Your task to perform on an android device: Open Amazon Image 0: 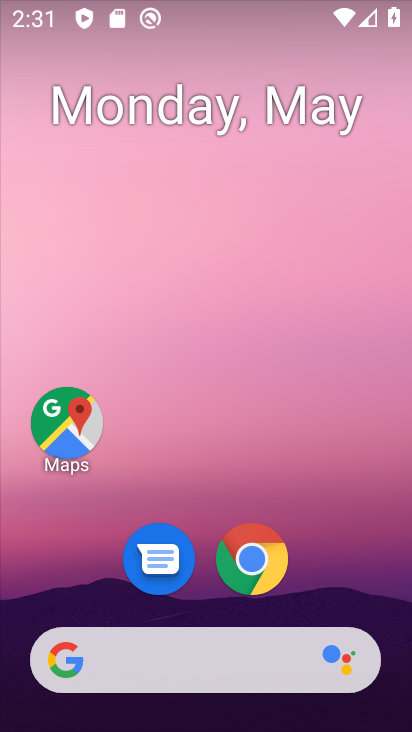
Step 0: drag from (335, 542) to (283, 25)
Your task to perform on an android device: Open Amazon Image 1: 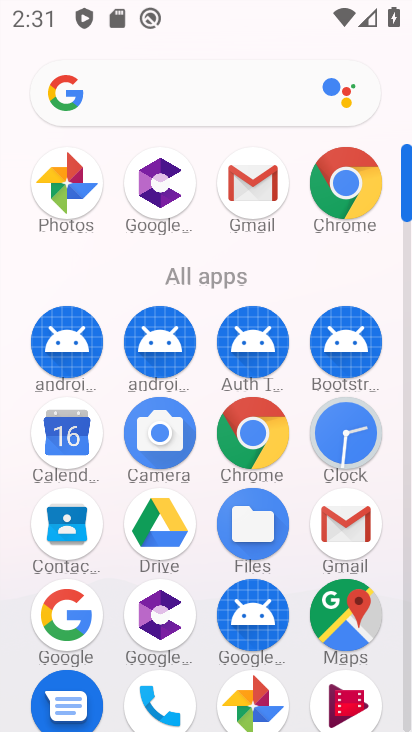
Step 1: click (248, 429)
Your task to perform on an android device: Open Amazon Image 2: 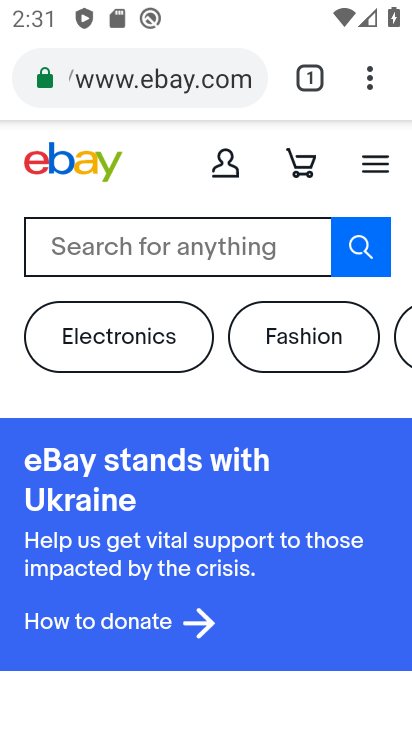
Step 2: click (180, 88)
Your task to perform on an android device: Open Amazon Image 3: 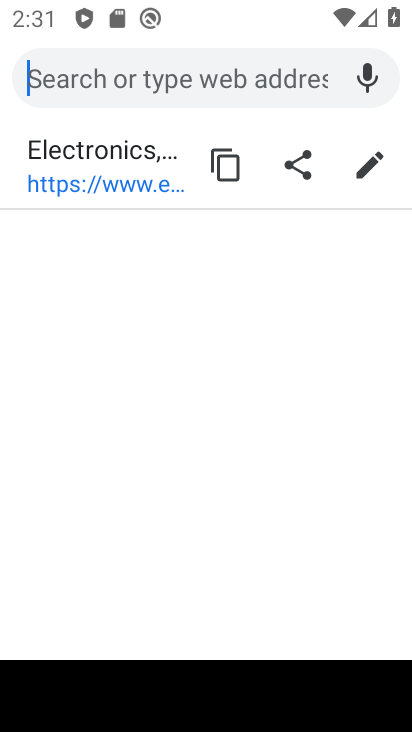
Step 3: type "Amazon"
Your task to perform on an android device: Open Amazon Image 4: 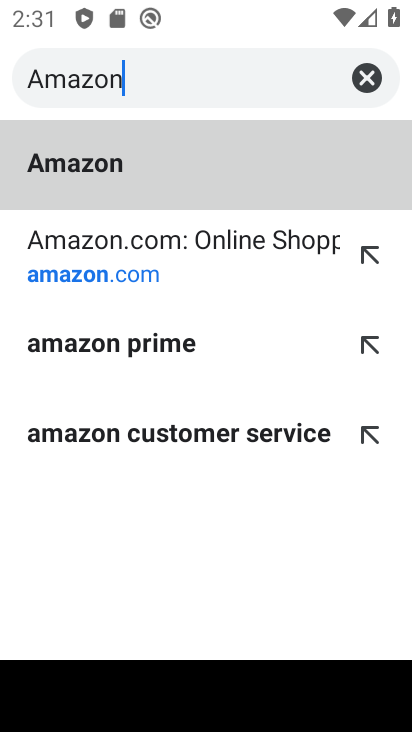
Step 4: click (137, 249)
Your task to perform on an android device: Open Amazon Image 5: 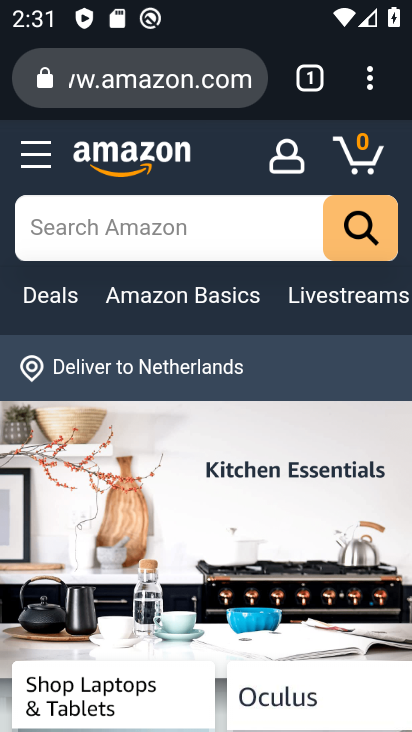
Step 5: task complete